Your task to perform on an android device: turn off translation in the chrome app Image 0: 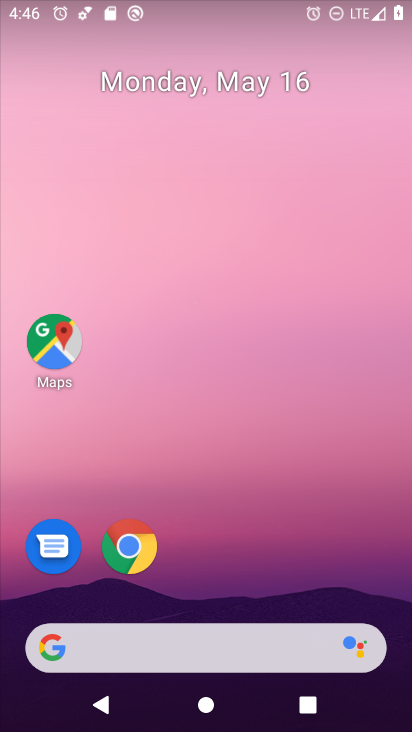
Step 0: drag from (376, 585) to (353, 162)
Your task to perform on an android device: turn off translation in the chrome app Image 1: 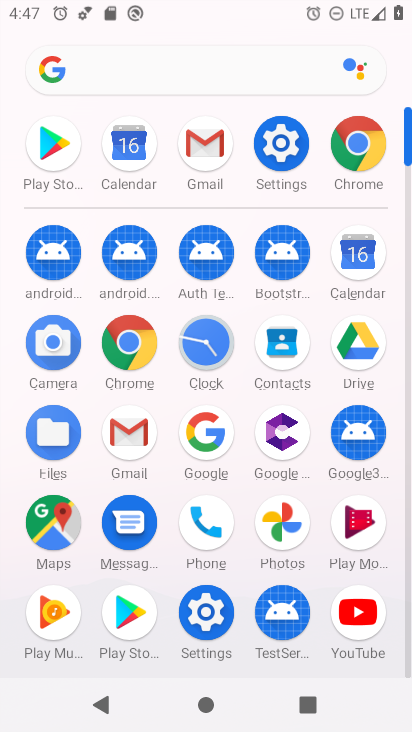
Step 1: click (362, 156)
Your task to perform on an android device: turn off translation in the chrome app Image 2: 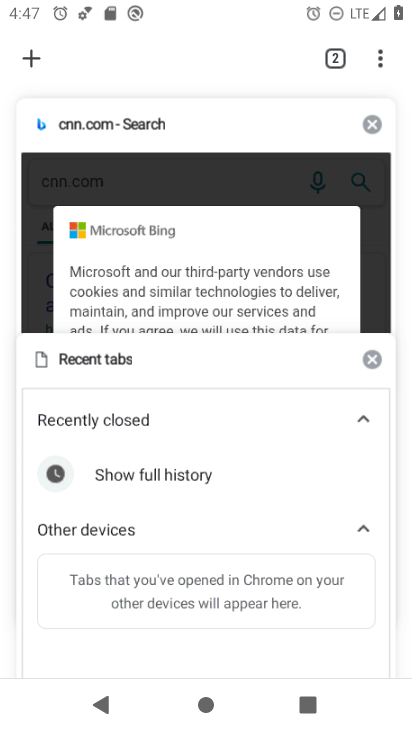
Step 2: click (382, 66)
Your task to perform on an android device: turn off translation in the chrome app Image 3: 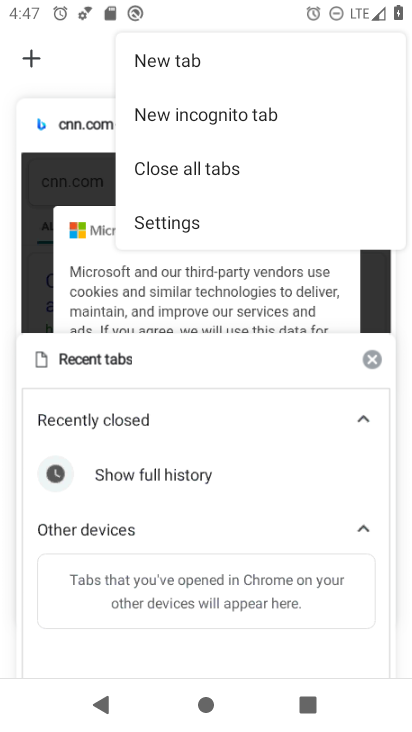
Step 3: click (233, 239)
Your task to perform on an android device: turn off translation in the chrome app Image 4: 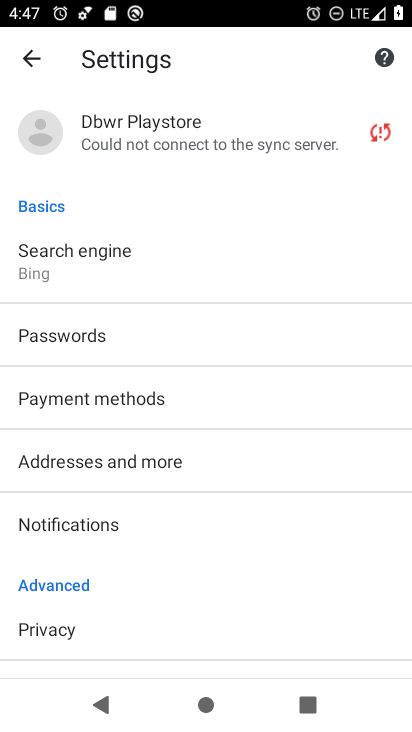
Step 4: drag from (272, 584) to (300, 431)
Your task to perform on an android device: turn off translation in the chrome app Image 5: 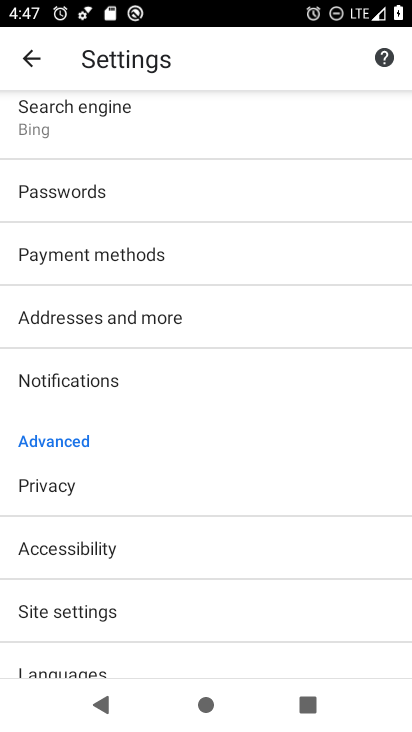
Step 5: drag from (303, 595) to (287, 471)
Your task to perform on an android device: turn off translation in the chrome app Image 6: 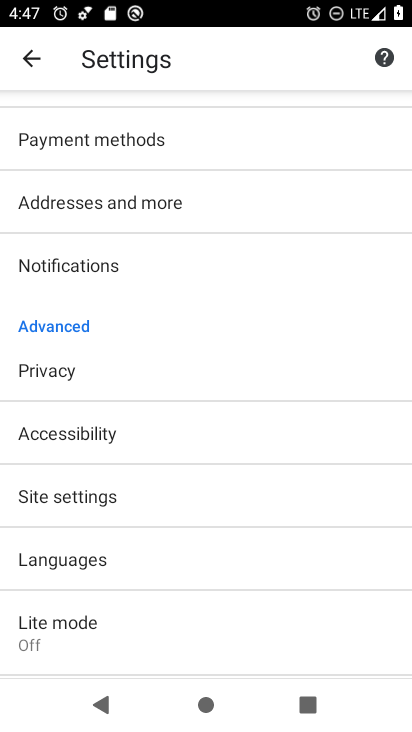
Step 6: drag from (269, 630) to (286, 493)
Your task to perform on an android device: turn off translation in the chrome app Image 7: 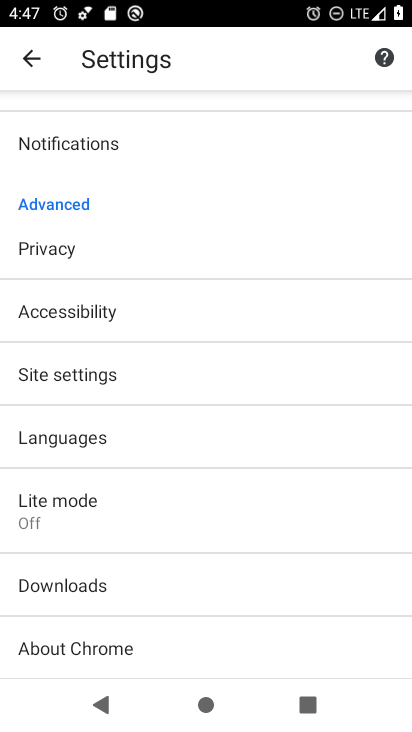
Step 7: drag from (241, 644) to (244, 453)
Your task to perform on an android device: turn off translation in the chrome app Image 8: 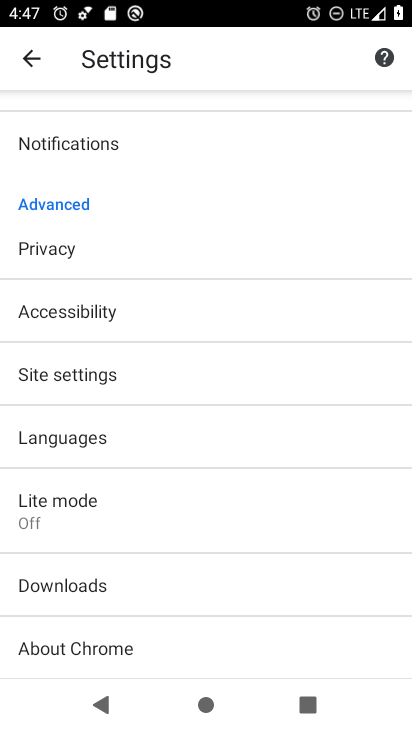
Step 8: click (192, 451)
Your task to perform on an android device: turn off translation in the chrome app Image 9: 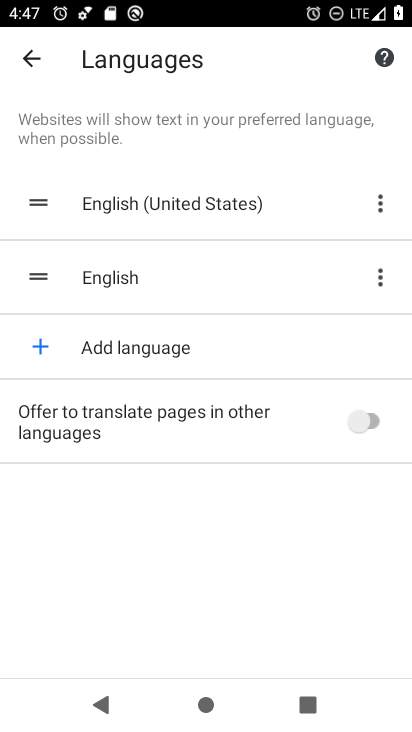
Step 9: task complete